Your task to perform on an android device: choose inbox layout in the gmail app Image 0: 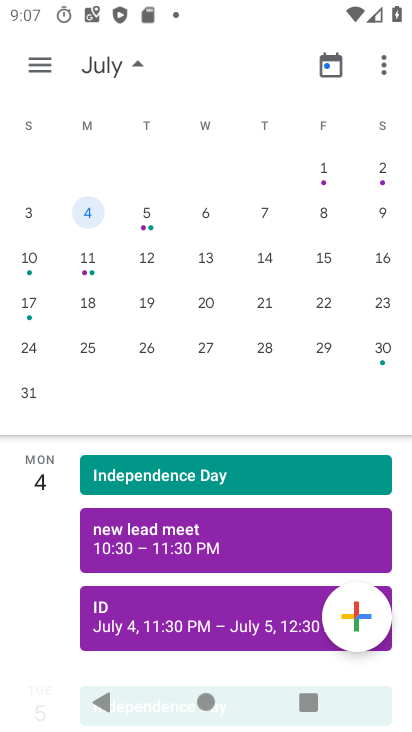
Step 0: press home button
Your task to perform on an android device: choose inbox layout in the gmail app Image 1: 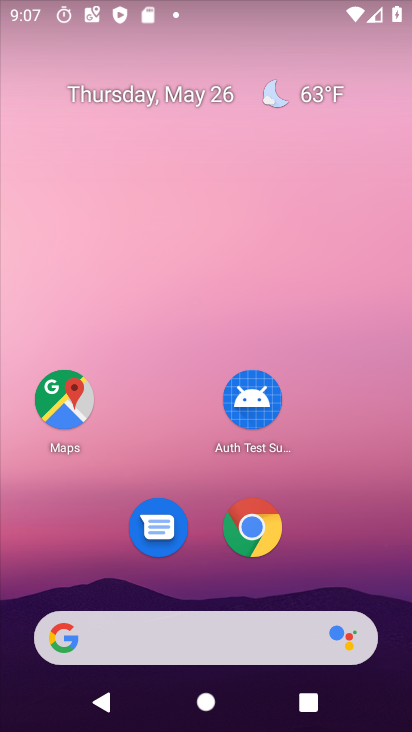
Step 1: drag from (374, 492) to (410, 244)
Your task to perform on an android device: choose inbox layout in the gmail app Image 2: 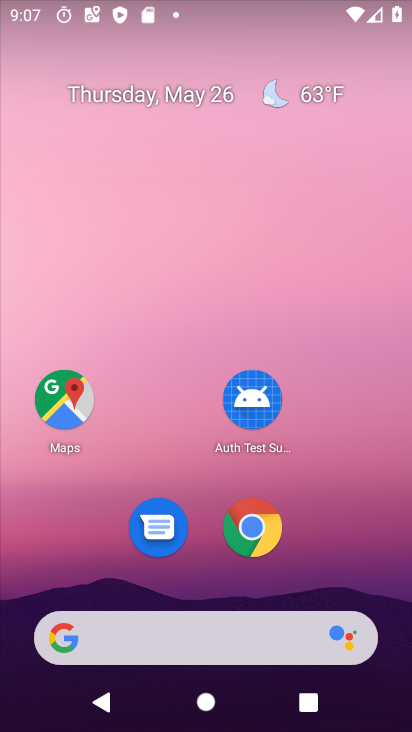
Step 2: drag from (332, 576) to (350, 2)
Your task to perform on an android device: choose inbox layout in the gmail app Image 3: 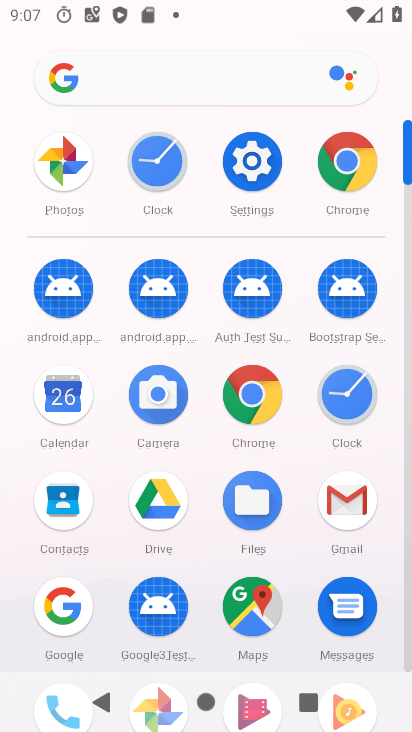
Step 3: click (363, 494)
Your task to perform on an android device: choose inbox layout in the gmail app Image 4: 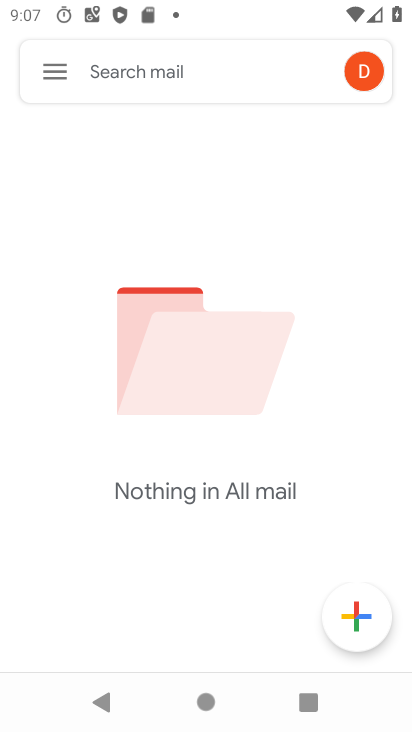
Step 4: click (47, 68)
Your task to perform on an android device: choose inbox layout in the gmail app Image 5: 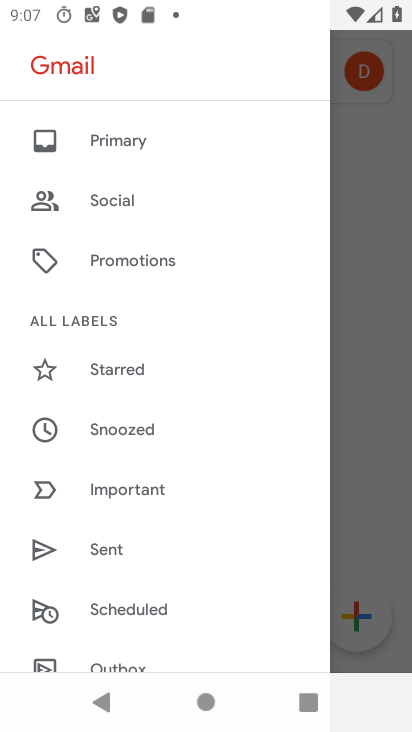
Step 5: drag from (147, 602) to (78, 119)
Your task to perform on an android device: choose inbox layout in the gmail app Image 6: 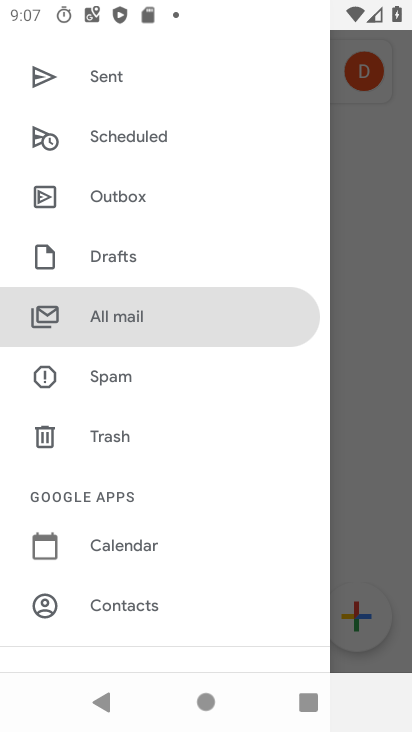
Step 6: drag from (98, 557) to (100, 61)
Your task to perform on an android device: choose inbox layout in the gmail app Image 7: 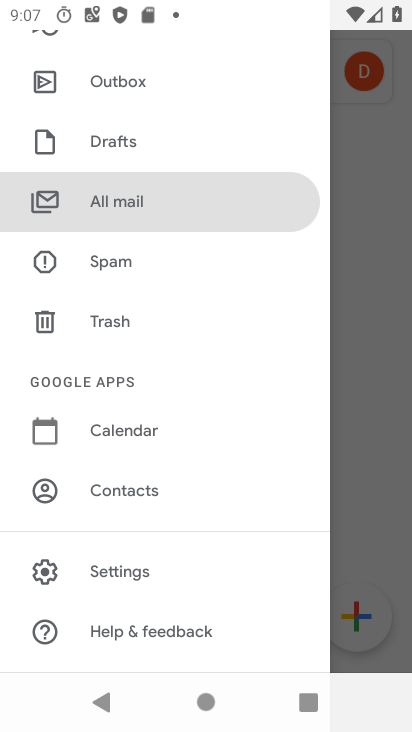
Step 7: click (106, 561)
Your task to perform on an android device: choose inbox layout in the gmail app Image 8: 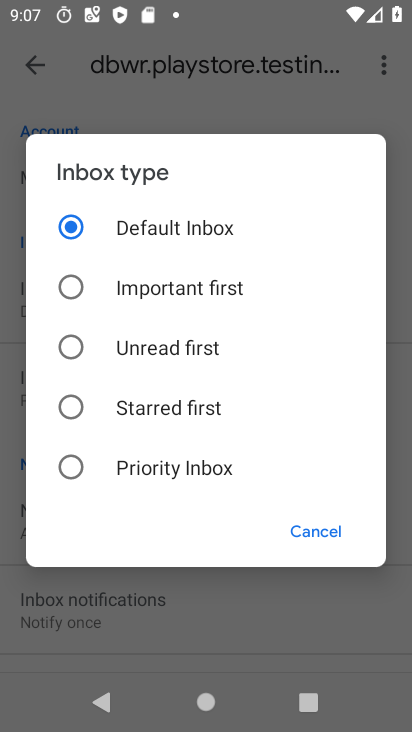
Step 8: click (115, 346)
Your task to perform on an android device: choose inbox layout in the gmail app Image 9: 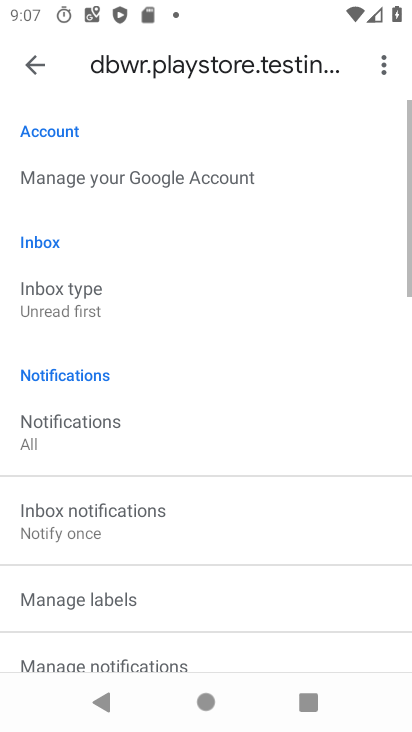
Step 9: task complete